Your task to perform on an android device: Open notification settings Image 0: 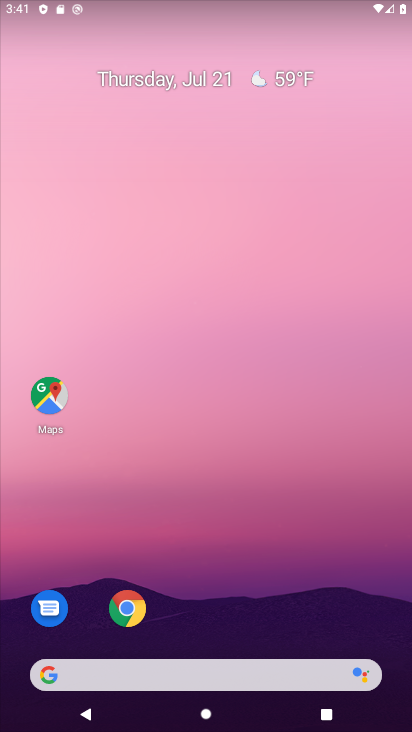
Step 0: drag from (221, 615) to (353, 86)
Your task to perform on an android device: Open notification settings Image 1: 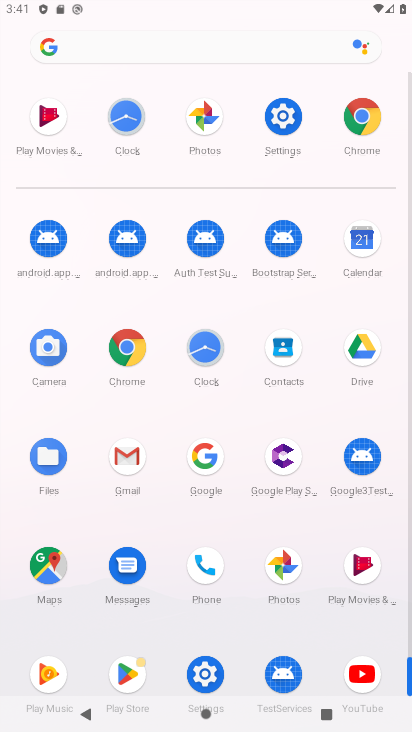
Step 1: click (284, 126)
Your task to perform on an android device: Open notification settings Image 2: 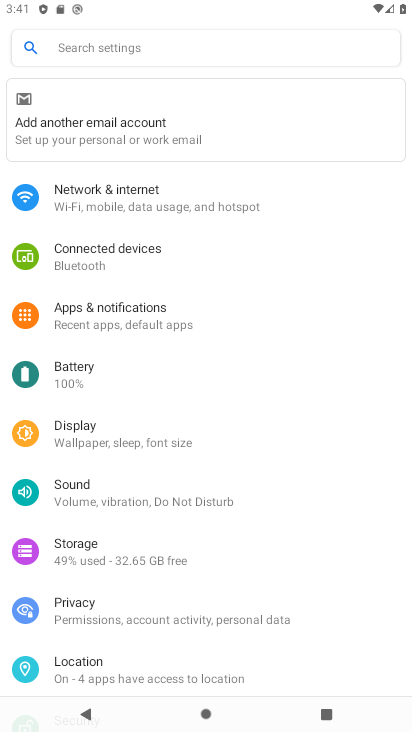
Step 2: click (122, 314)
Your task to perform on an android device: Open notification settings Image 3: 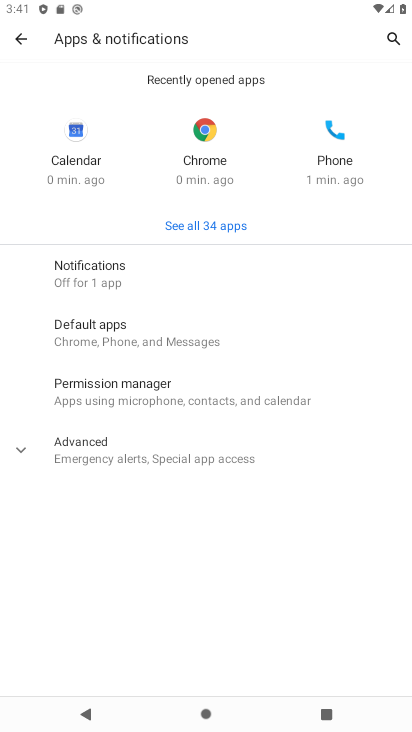
Step 3: task complete